Your task to perform on an android device: stop showing notifications on the lock screen Image 0: 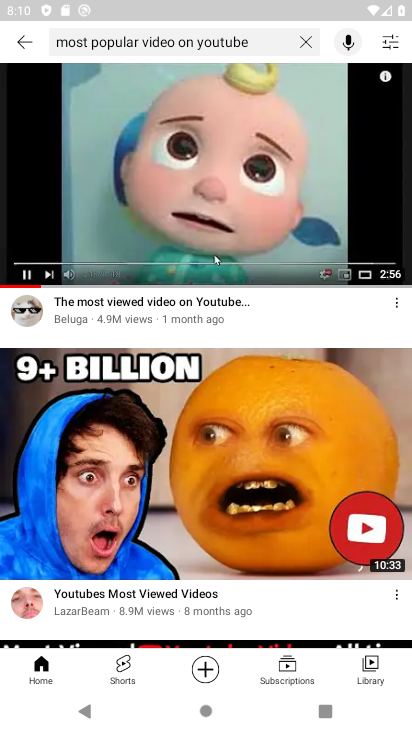
Step 0: press home button
Your task to perform on an android device: stop showing notifications on the lock screen Image 1: 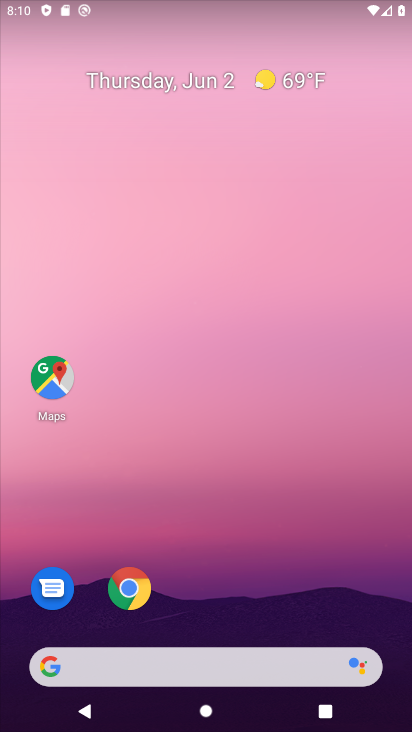
Step 1: drag from (234, 724) to (223, 106)
Your task to perform on an android device: stop showing notifications on the lock screen Image 2: 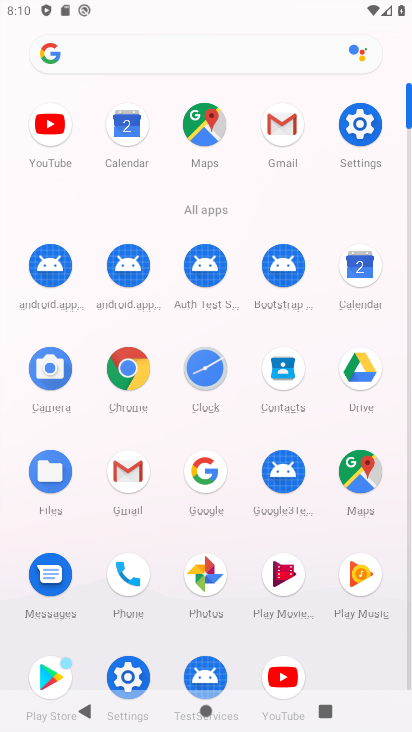
Step 2: click (368, 119)
Your task to perform on an android device: stop showing notifications on the lock screen Image 3: 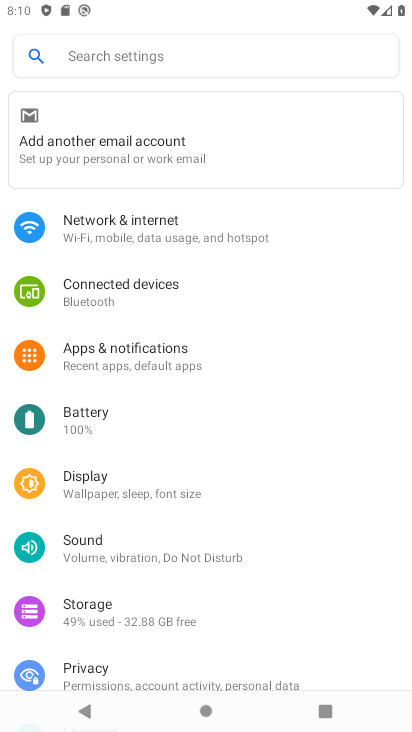
Step 3: click (157, 357)
Your task to perform on an android device: stop showing notifications on the lock screen Image 4: 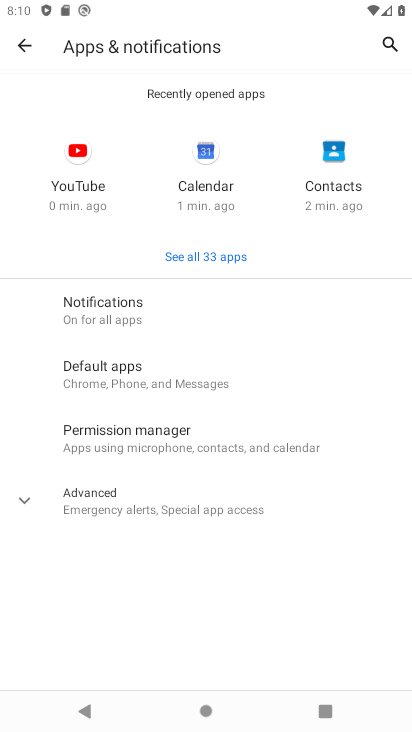
Step 4: click (95, 319)
Your task to perform on an android device: stop showing notifications on the lock screen Image 5: 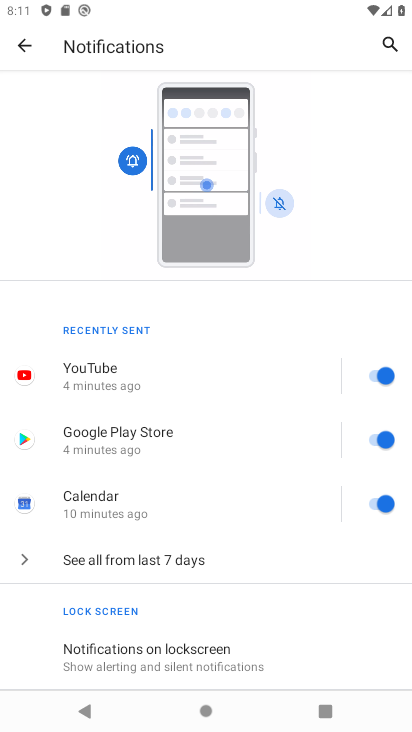
Step 5: click (123, 653)
Your task to perform on an android device: stop showing notifications on the lock screen Image 6: 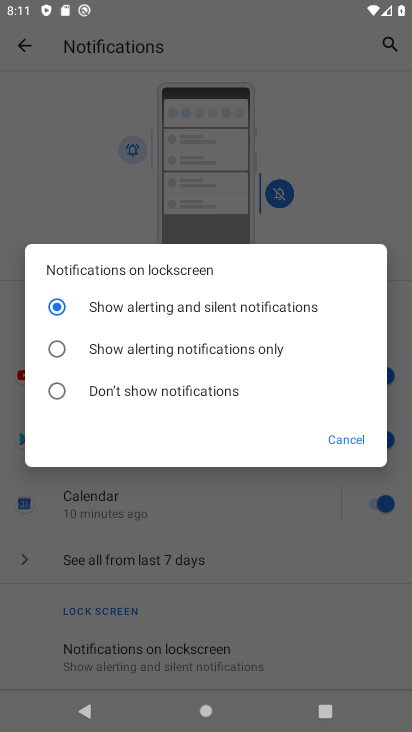
Step 6: click (56, 388)
Your task to perform on an android device: stop showing notifications on the lock screen Image 7: 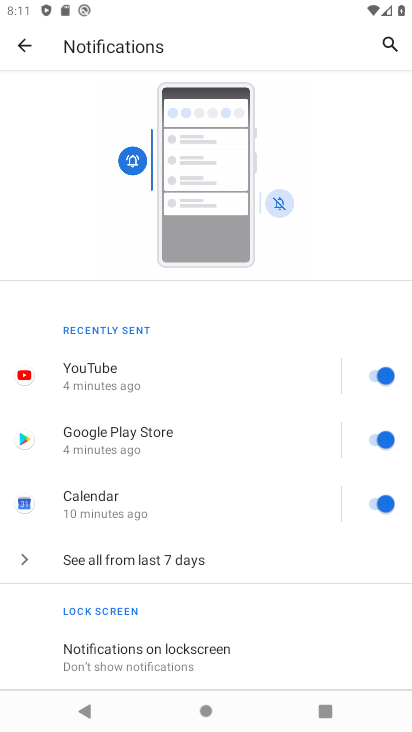
Step 7: task complete